Your task to perform on an android device: turn off priority inbox in the gmail app Image 0: 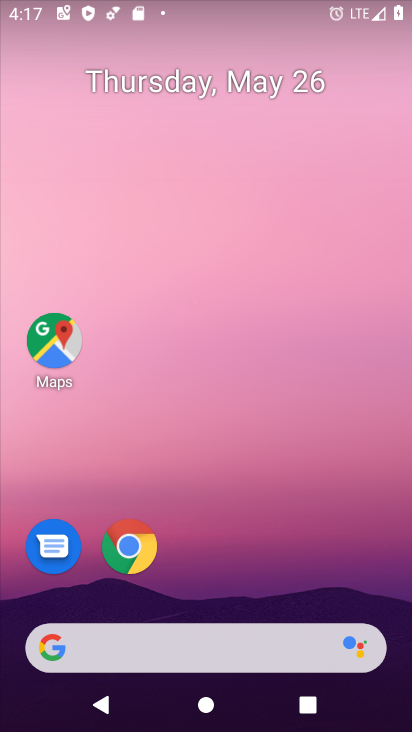
Step 0: drag from (234, 567) to (329, 35)
Your task to perform on an android device: turn off priority inbox in the gmail app Image 1: 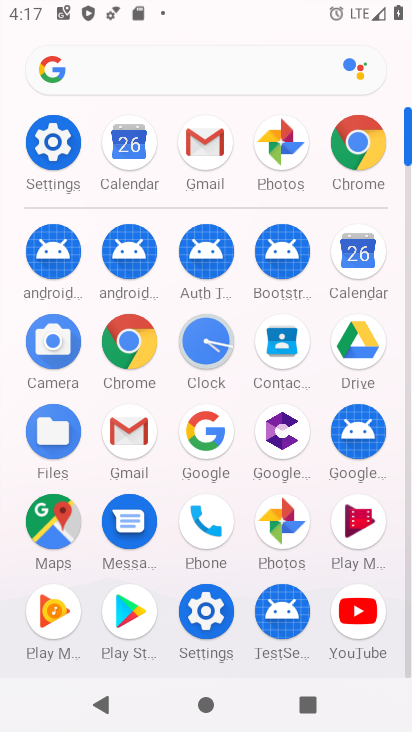
Step 1: click (207, 129)
Your task to perform on an android device: turn off priority inbox in the gmail app Image 2: 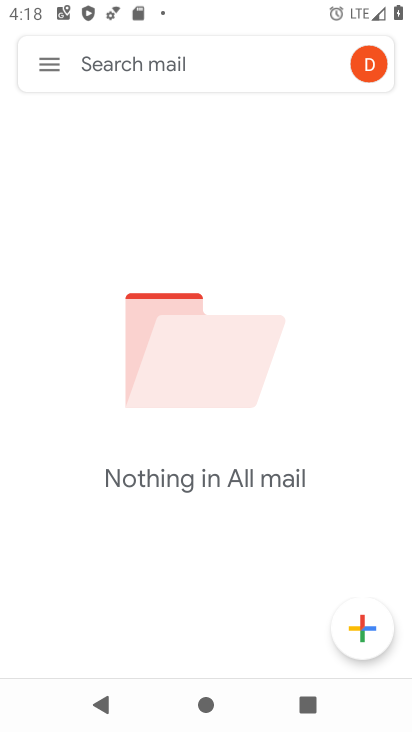
Step 2: click (54, 59)
Your task to perform on an android device: turn off priority inbox in the gmail app Image 3: 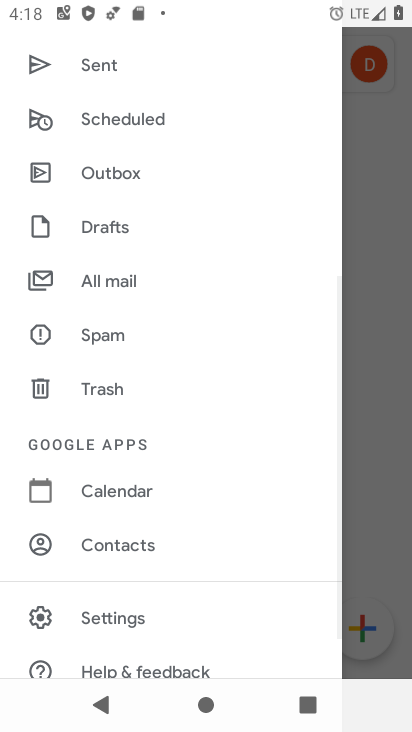
Step 3: click (128, 613)
Your task to perform on an android device: turn off priority inbox in the gmail app Image 4: 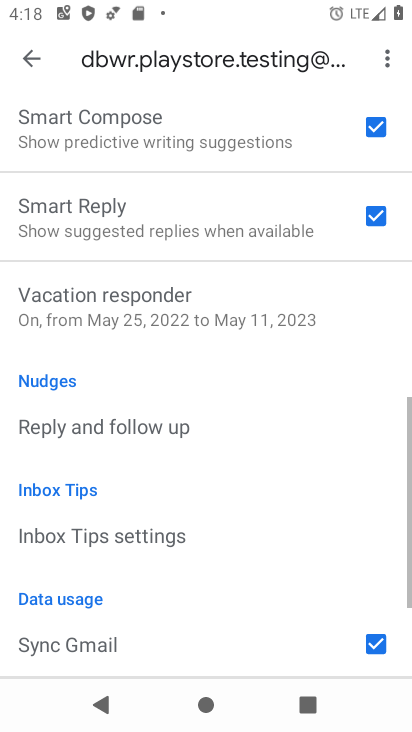
Step 4: drag from (189, 223) to (171, 700)
Your task to perform on an android device: turn off priority inbox in the gmail app Image 5: 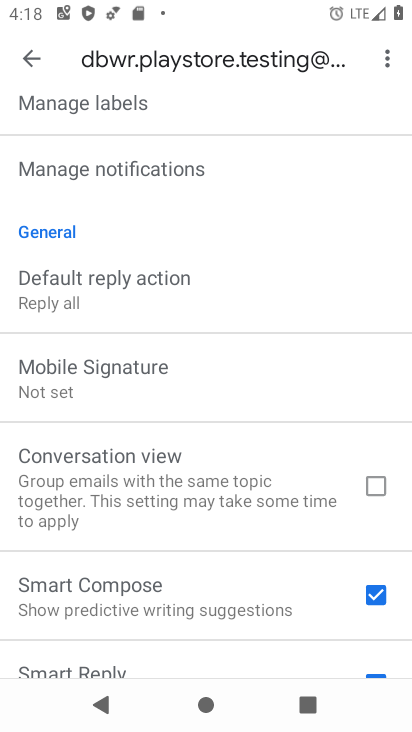
Step 5: drag from (217, 200) to (187, 724)
Your task to perform on an android device: turn off priority inbox in the gmail app Image 6: 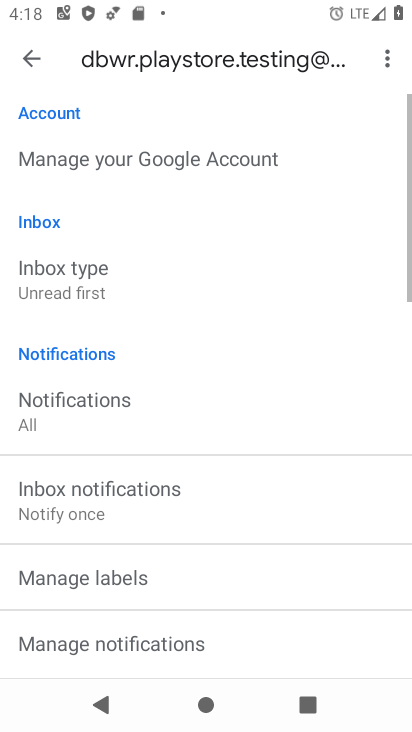
Step 6: click (72, 287)
Your task to perform on an android device: turn off priority inbox in the gmail app Image 7: 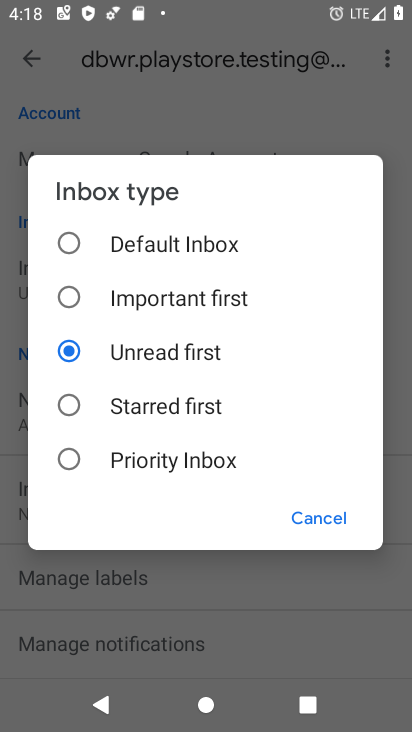
Step 7: click (62, 245)
Your task to perform on an android device: turn off priority inbox in the gmail app Image 8: 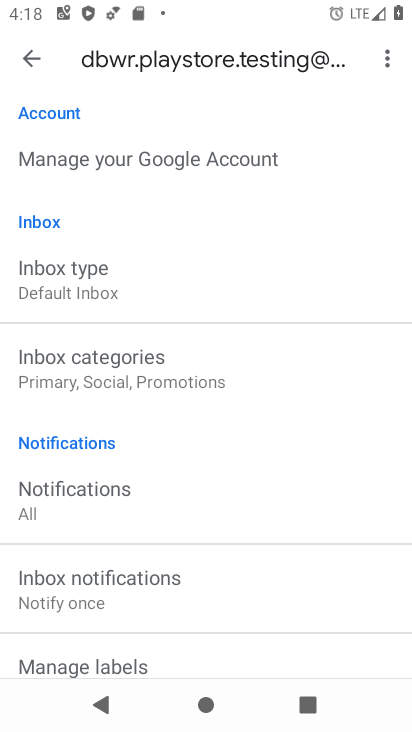
Step 8: task complete